Your task to perform on an android device: turn off location Image 0: 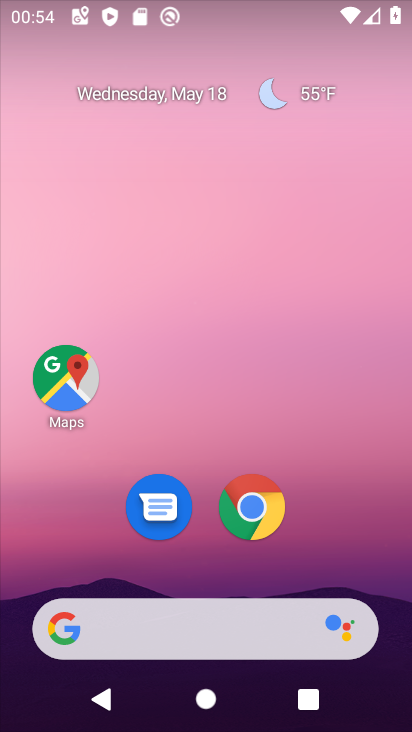
Step 0: drag from (385, 626) to (341, 75)
Your task to perform on an android device: turn off location Image 1: 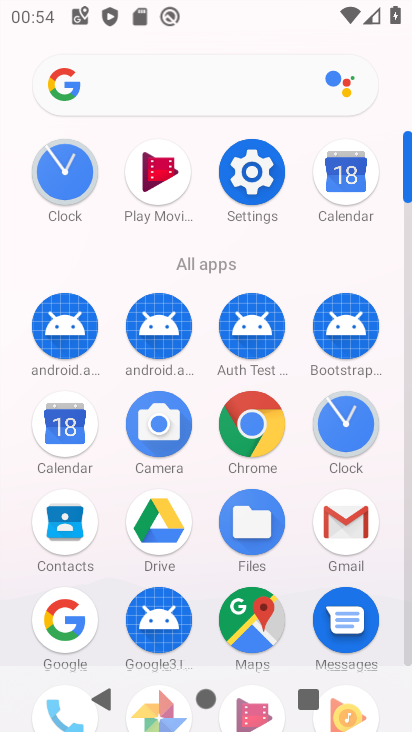
Step 1: click (406, 643)
Your task to perform on an android device: turn off location Image 2: 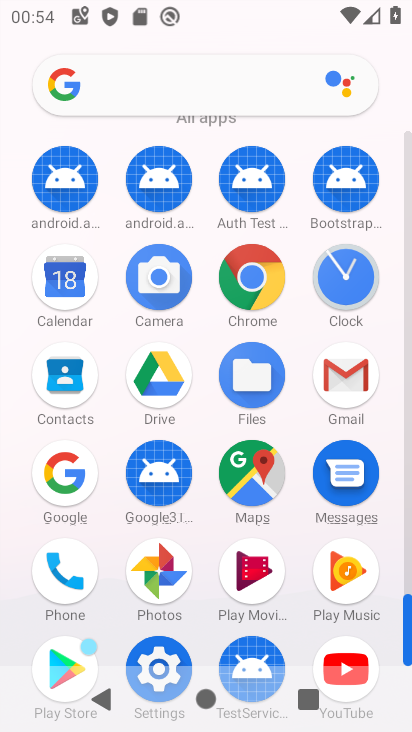
Step 2: click (154, 655)
Your task to perform on an android device: turn off location Image 3: 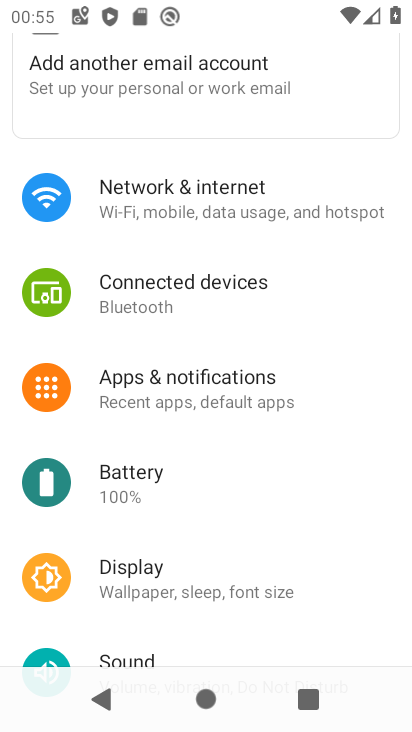
Step 3: drag from (322, 602) to (274, 235)
Your task to perform on an android device: turn off location Image 4: 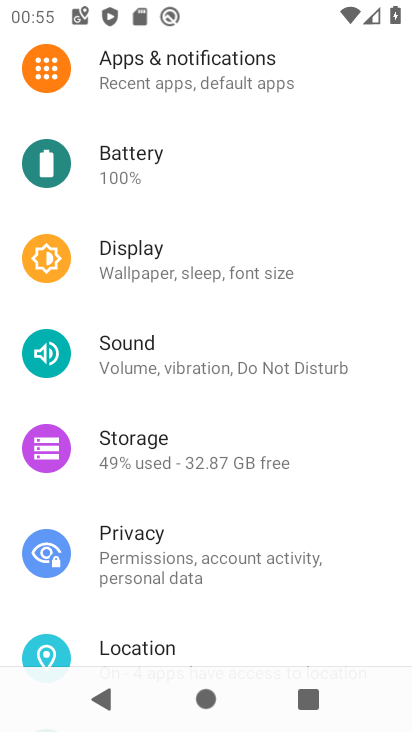
Step 4: drag from (267, 599) to (293, 304)
Your task to perform on an android device: turn off location Image 5: 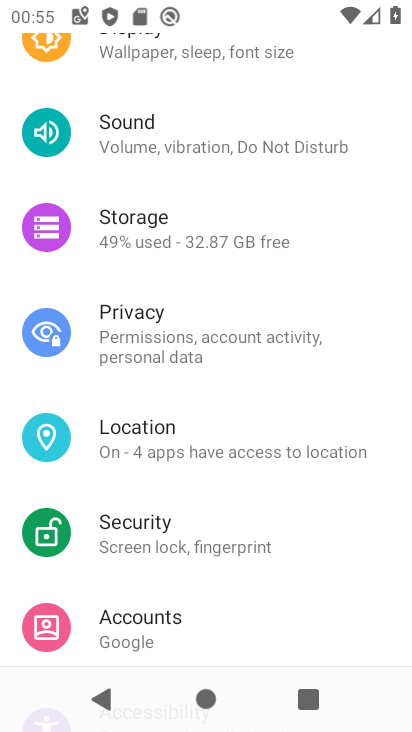
Step 5: click (146, 432)
Your task to perform on an android device: turn off location Image 6: 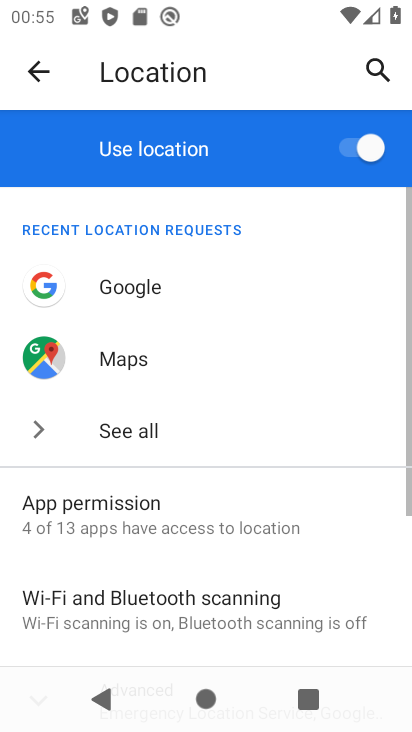
Step 6: click (355, 143)
Your task to perform on an android device: turn off location Image 7: 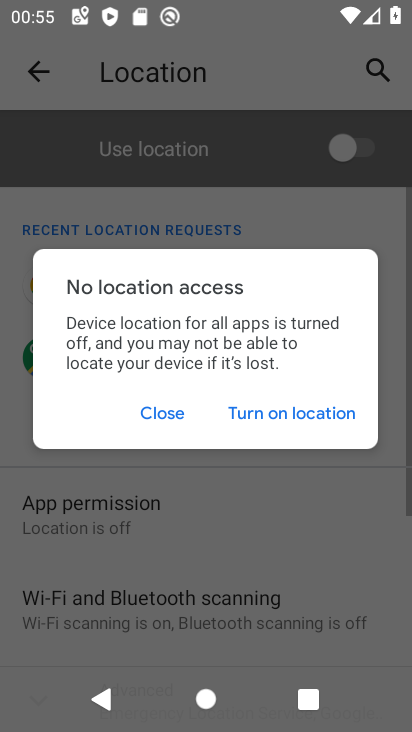
Step 7: task complete